Your task to perform on an android device: all mails in gmail Image 0: 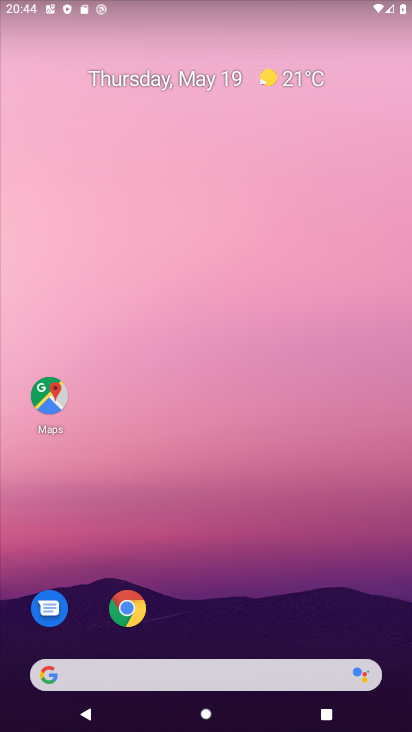
Step 0: drag from (262, 472) to (141, 80)
Your task to perform on an android device: all mails in gmail Image 1: 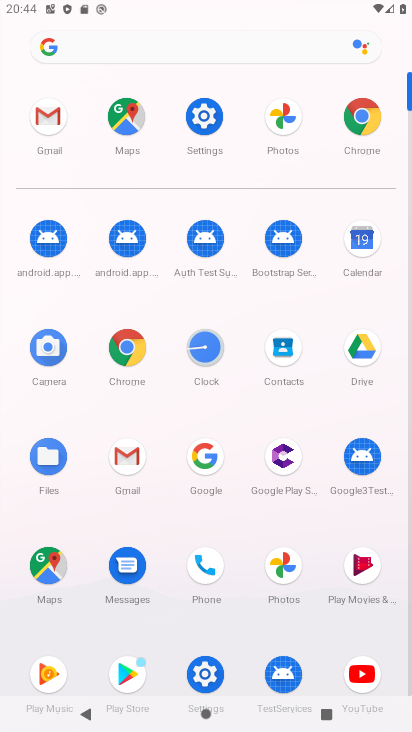
Step 1: click (43, 112)
Your task to perform on an android device: all mails in gmail Image 2: 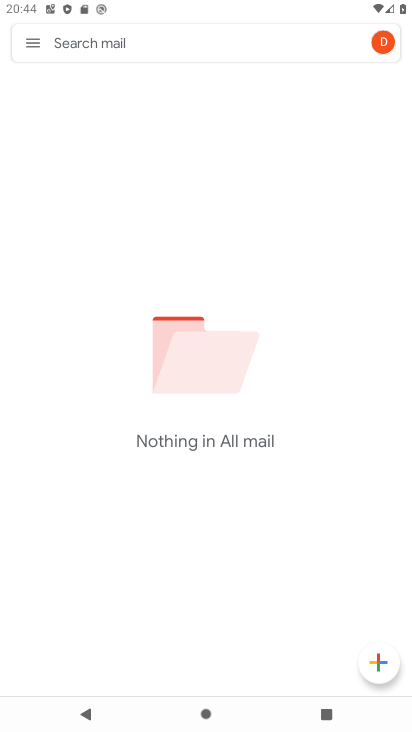
Step 2: task complete